Your task to perform on an android device: delete a single message in the gmail app Image 0: 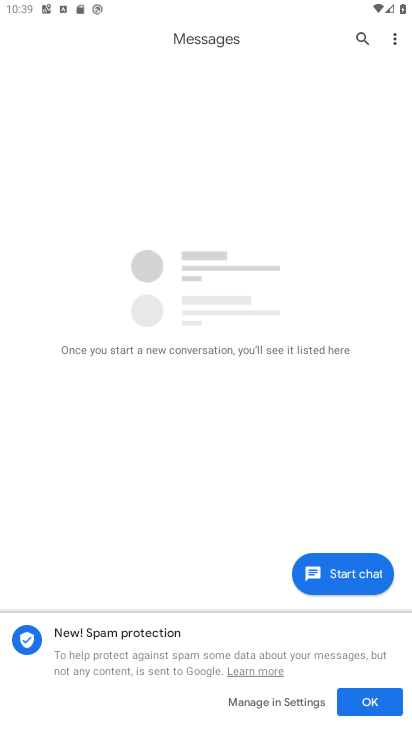
Step 0: click (346, 423)
Your task to perform on an android device: delete a single message in the gmail app Image 1: 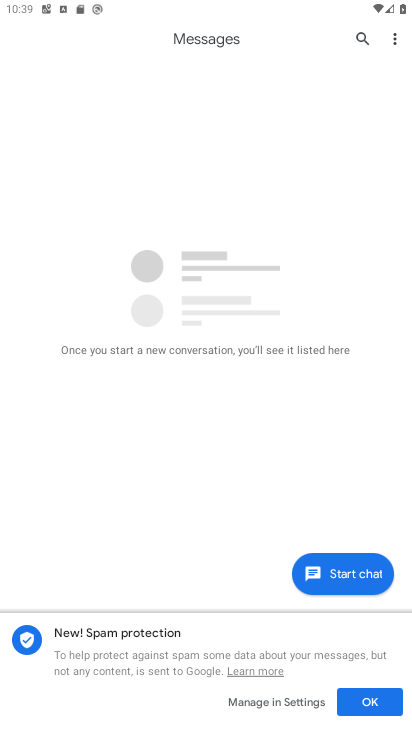
Step 1: press home button
Your task to perform on an android device: delete a single message in the gmail app Image 2: 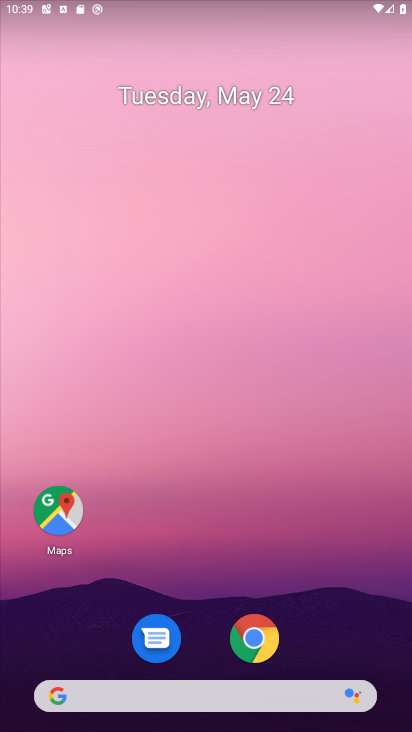
Step 2: drag from (174, 722) to (230, 39)
Your task to perform on an android device: delete a single message in the gmail app Image 3: 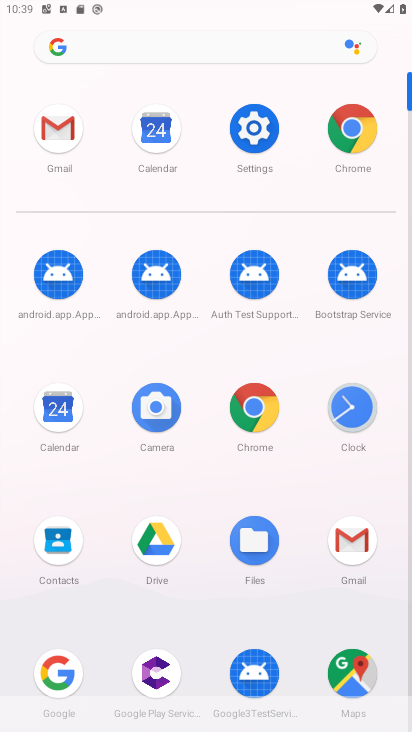
Step 3: click (342, 545)
Your task to perform on an android device: delete a single message in the gmail app Image 4: 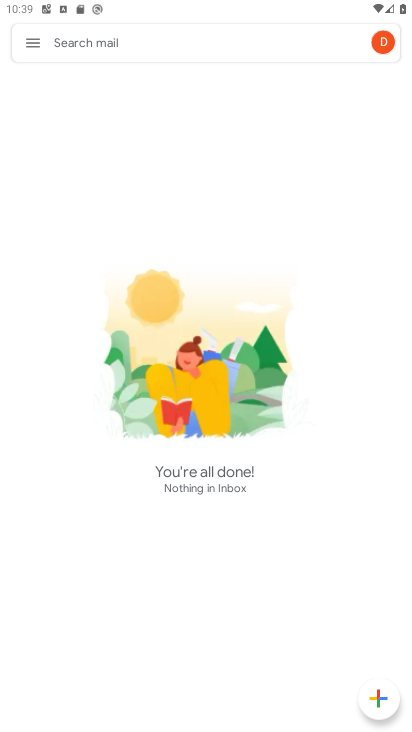
Step 4: task complete